Your task to perform on an android device: Go to Maps Image 0: 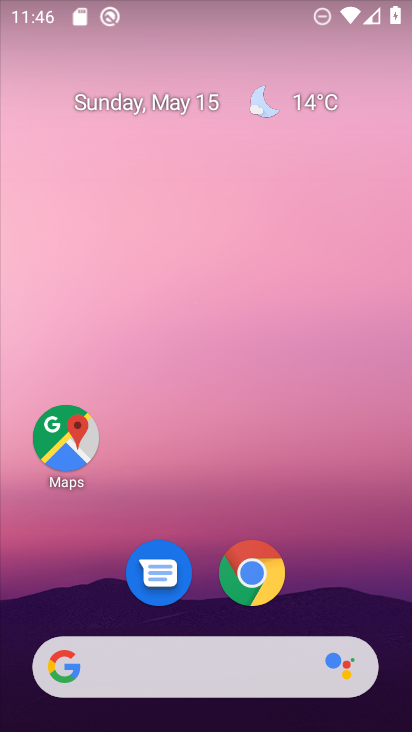
Step 0: click (69, 434)
Your task to perform on an android device: Go to Maps Image 1: 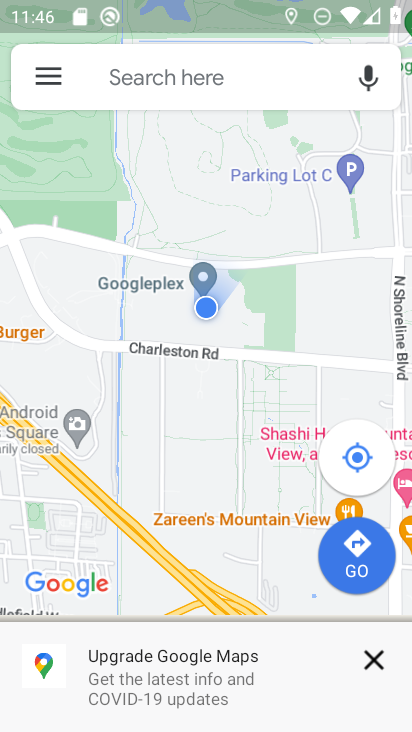
Step 1: task complete